Your task to perform on an android device: delete a single message in the gmail app Image 0: 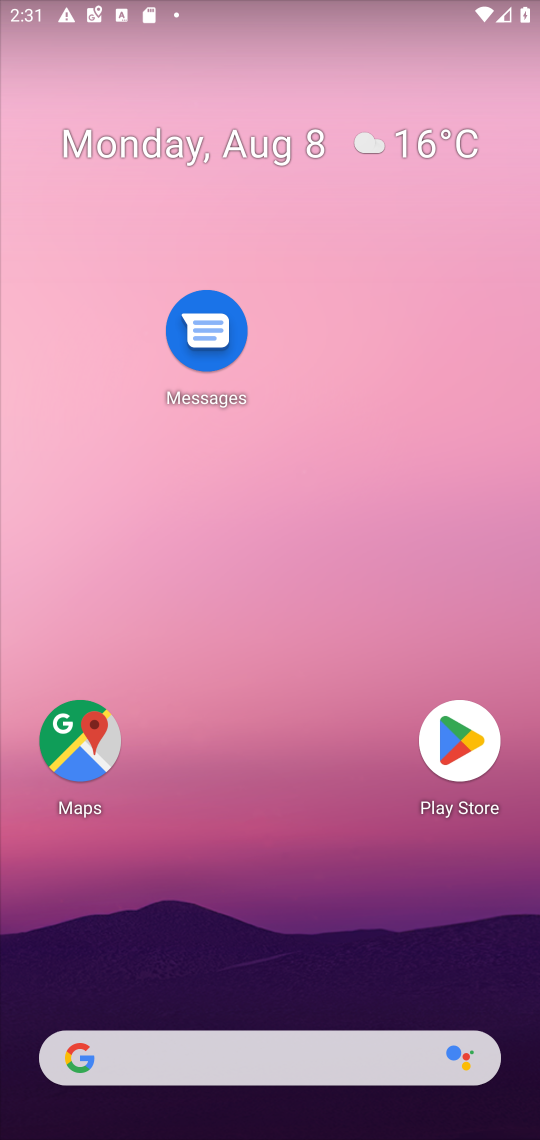
Step 0: drag from (270, 1068) to (256, 71)
Your task to perform on an android device: delete a single message in the gmail app Image 1: 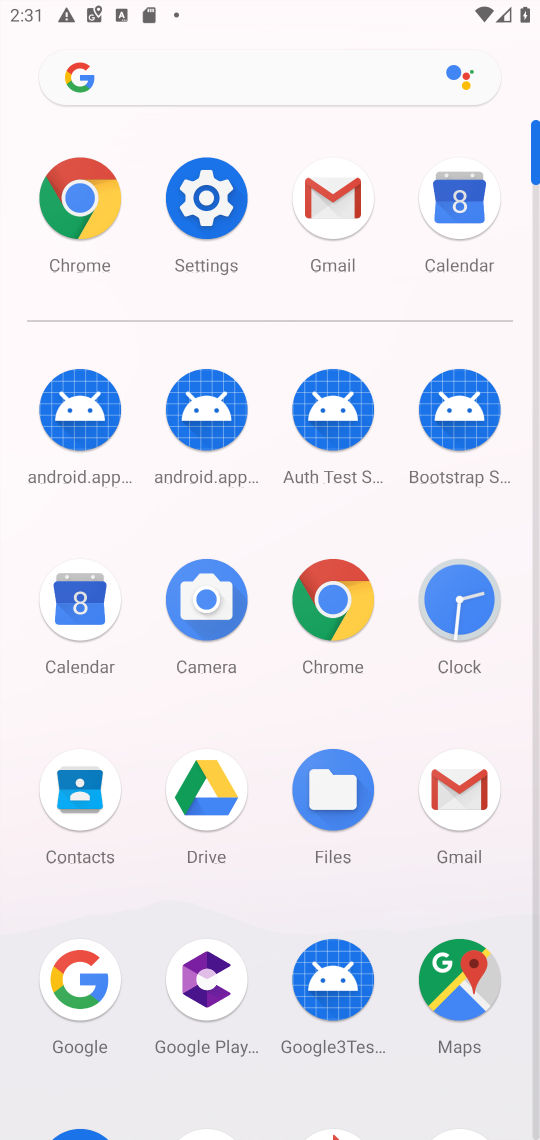
Step 1: click (475, 799)
Your task to perform on an android device: delete a single message in the gmail app Image 2: 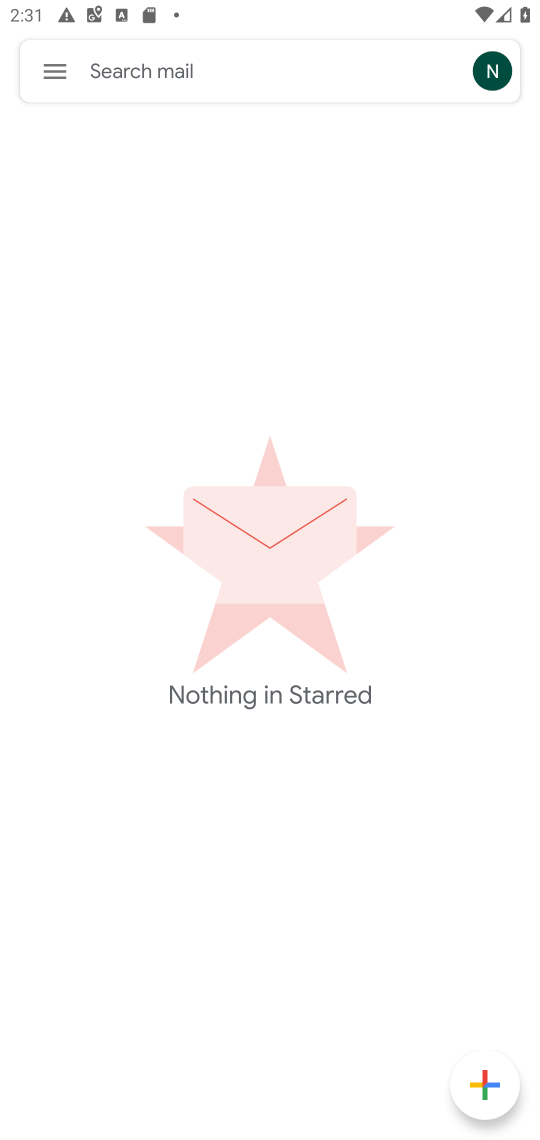
Step 2: task complete